Your task to perform on an android device: change alarm snooze length Image 0: 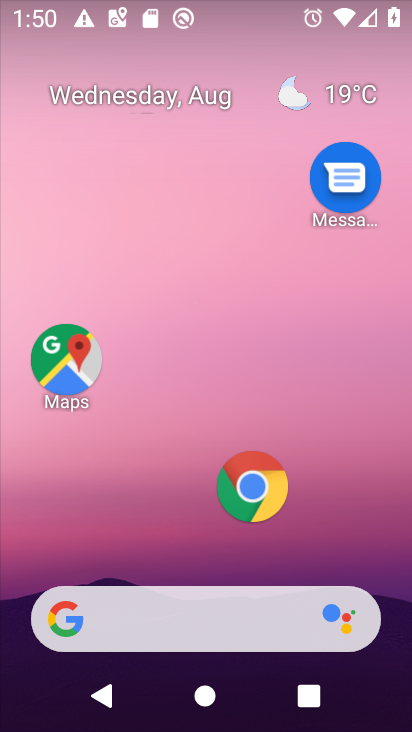
Step 0: drag from (181, 529) to (253, 37)
Your task to perform on an android device: change alarm snooze length Image 1: 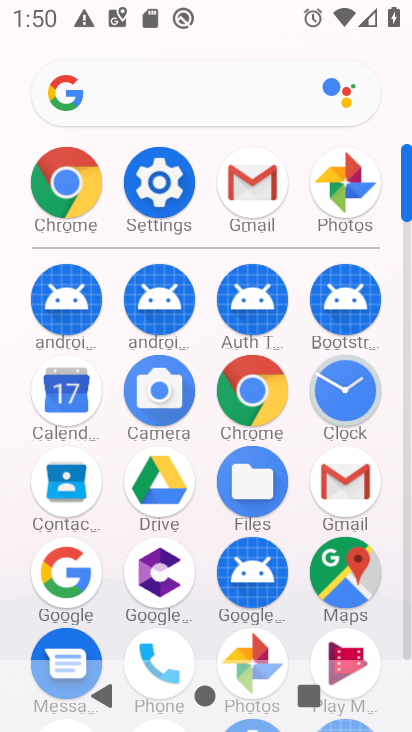
Step 1: click (357, 381)
Your task to perform on an android device: change alarm snooze length Image 2: 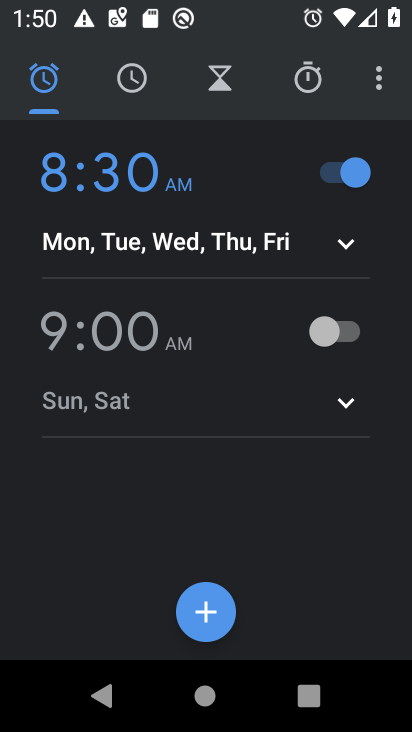
Step 2: click (373, 86)
Your task to perform on an android device: change alarm snooze length Image 3: 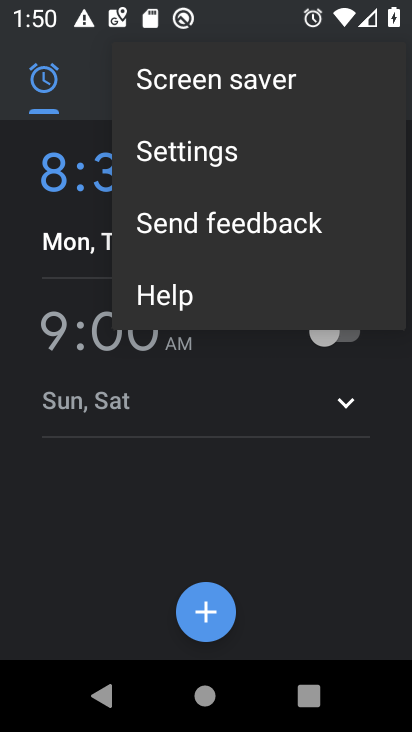
Step 3: click (191, 149)
Your task to perform on an android device: change alarm snooze length Image 4: 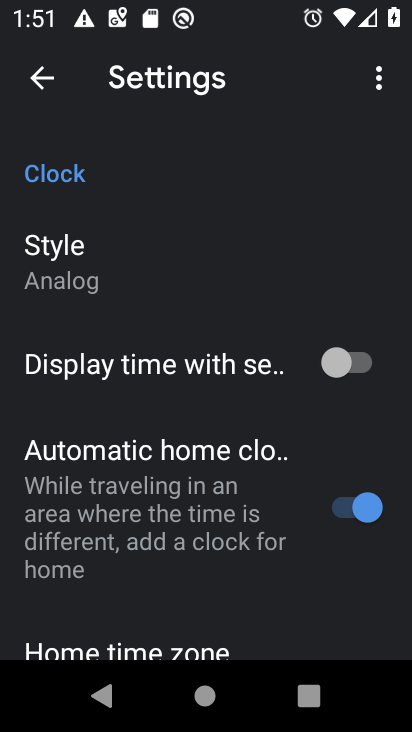
Step 4: drag from (200, 542) to (277, 51)
Your task to perform on an android device: change alarm snooze length Image 5: 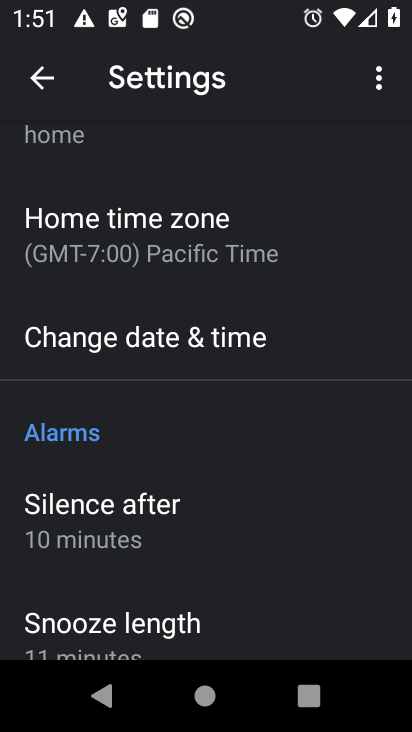
Step 5: click (142, 639)
Your task to perform on an android device: change alarm snooze length Image 6: 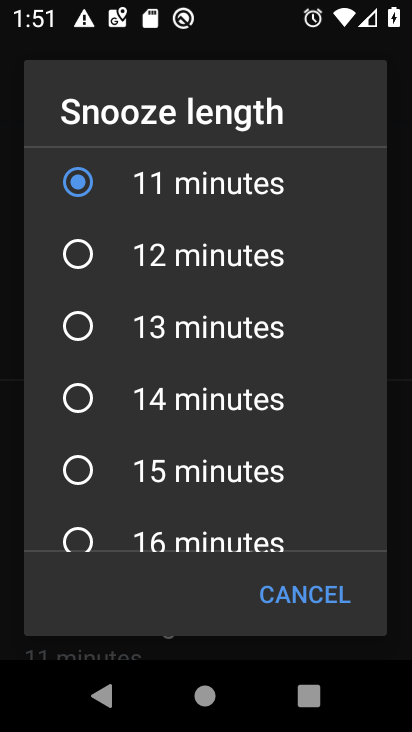
Step 6: click (168, 268)
Your task to perform on an android device: change alarm snooze length Image 7: 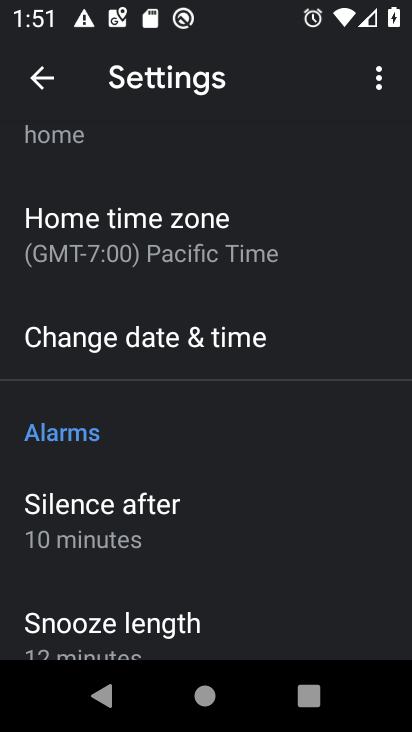
Step 7: task complete